Your task to perform on an android device: Go to location settings Image 0: 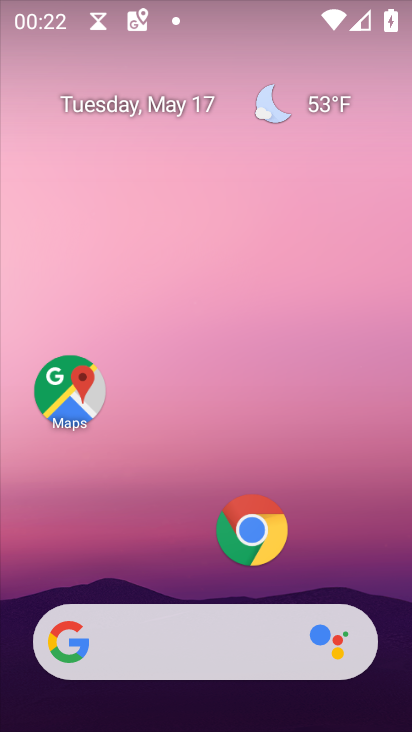
Step 0: drag from (176, 476) to (150, 70)
Your task to perform on an android device: Go to location settings Image 1: 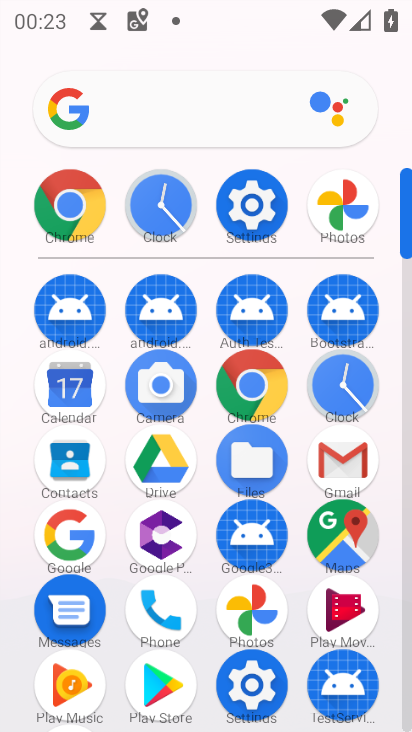
Step 1: click (253, 217)
Your task to perform on an android device: Go to location settings Image 2: 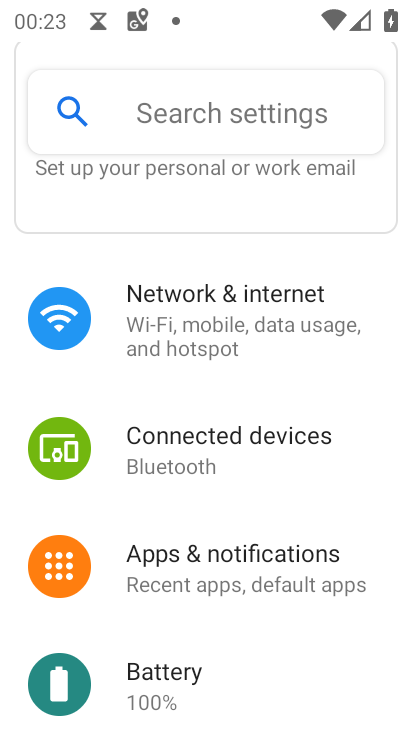
Step 2: drag from (295, 642) to (241, 254)
Your task to perform on an android device: Go to location settings Image 3: 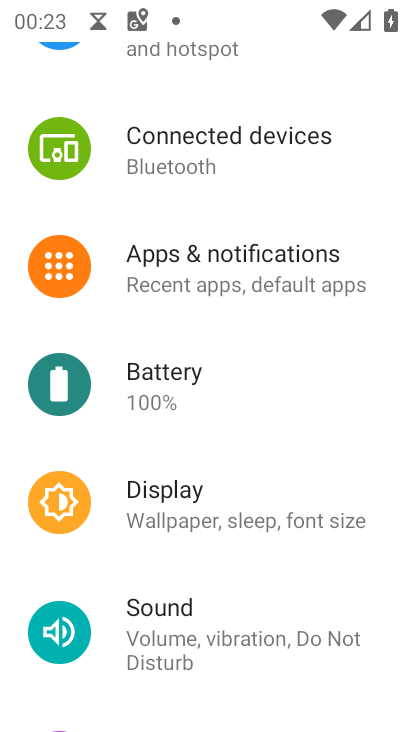
Step 3: drag from (254, 611) to (256, 318)
Your task to perform on an android device: Go to location settings Image 4: 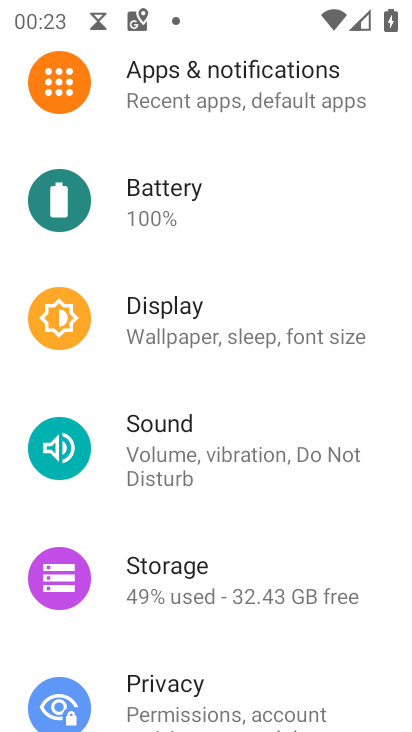
Step 4: drag from (259, 644) to (261, 133)
Your task to perform on an android device: Go to location settings Image 5: 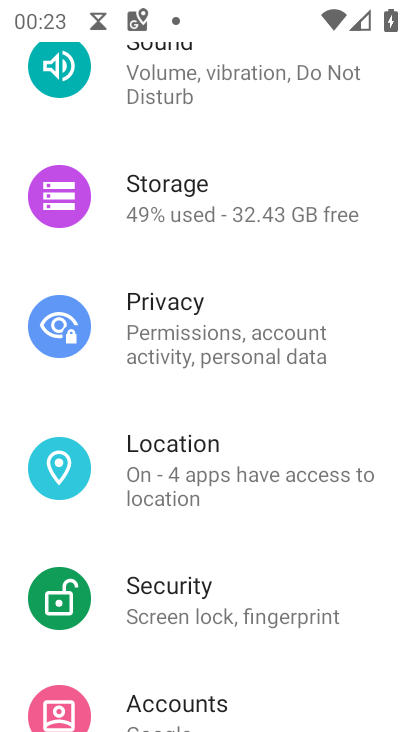
Step 5: click (219, 485)
Your task to perform on an android device: Go to location settings Image 6: 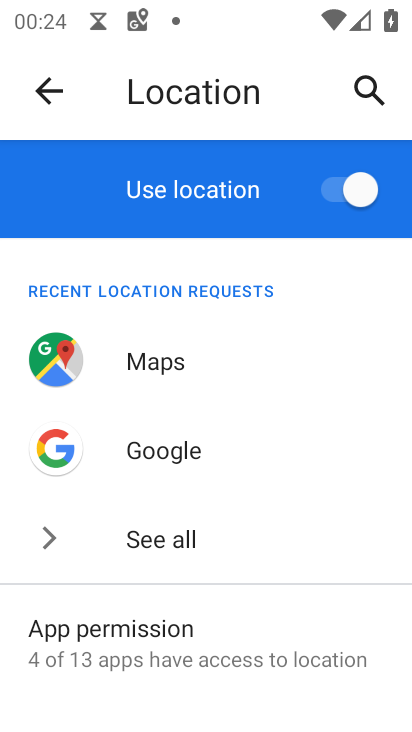
Step 6: task complete